Your task to perform on an android device: turn on improve location accuracy Image 0: 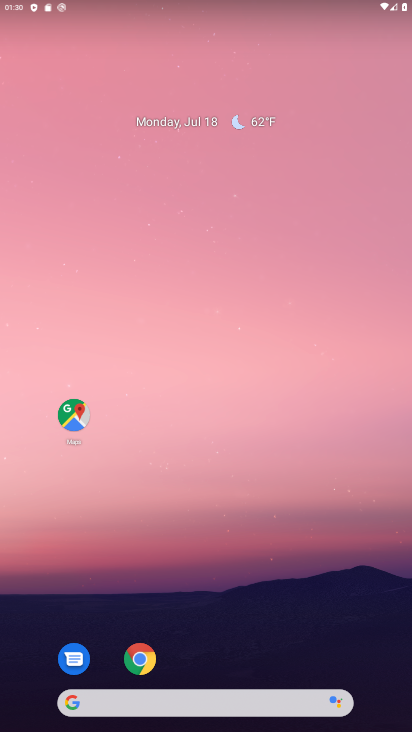
Step 0: click (312, 425)
Your task to perform on an android device: turn on improve location accuracy Image 1: 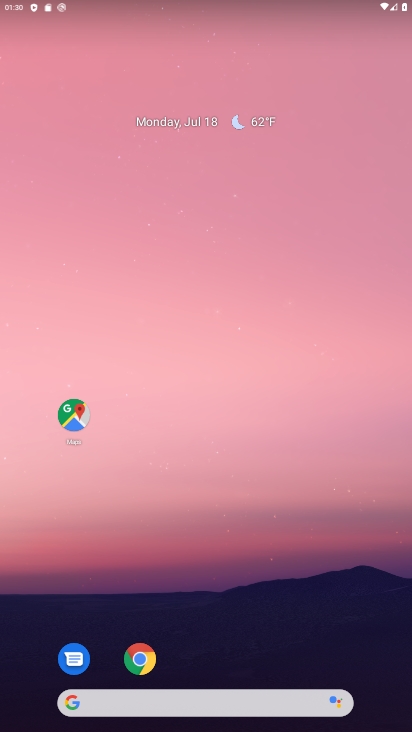
Step 1: drag from (203, 612) to (163, 103)
Your task to perform on an android device: turn on improve location accuracy Image 2: 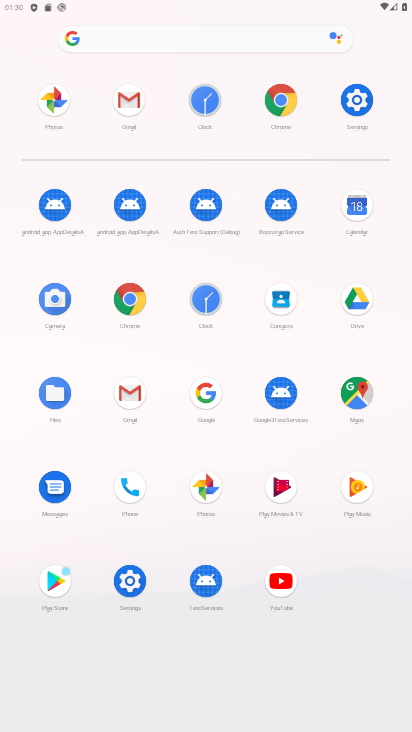
Step 2: click (357, 95)
Your task to perform on an android device: turn on improve location accuracy Image 3: 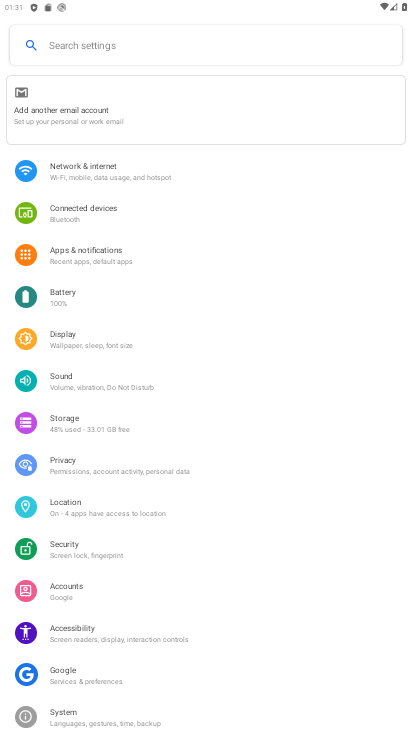
Step 3: click (138, 507)
Your task to perform on an android device: turn on improve location accuracy Image 4: 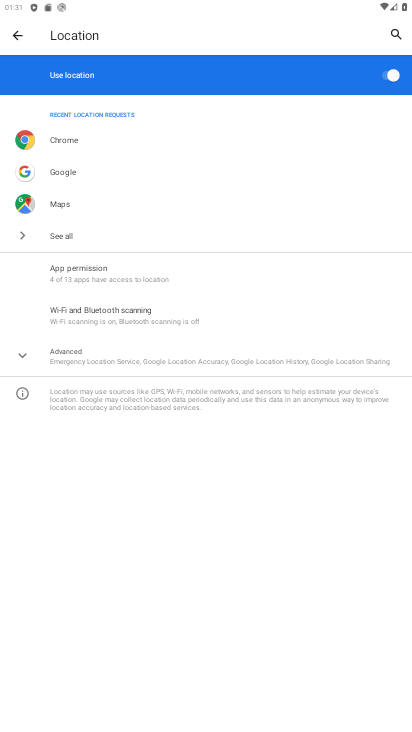
Step 4: click (154, 365)
Your task to perform on an android device: turn on improve location accuracy Image 5: 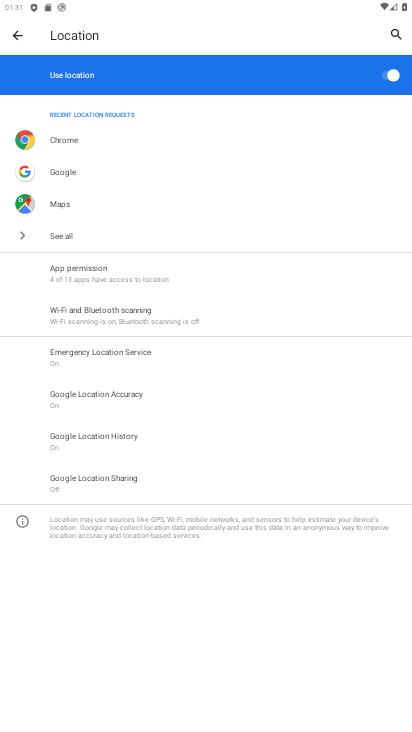
Step 5: click (130, 397)
Your task to perform on an android device: turn on improve location accuracy Image 6: 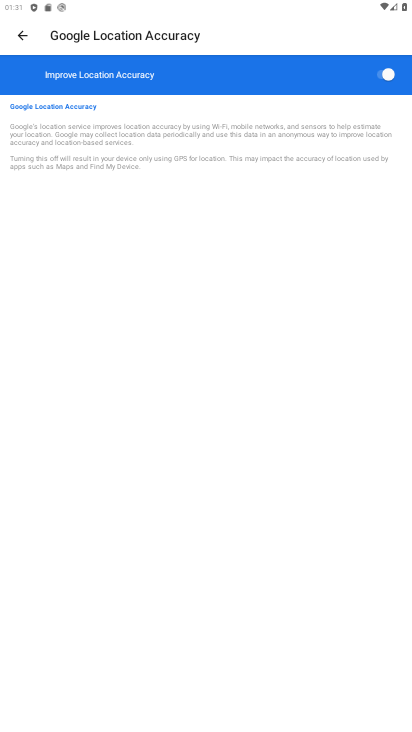
Step 6: task complete